Your task to perform on an android device: Open the calendar and show me this week's events Image 0: 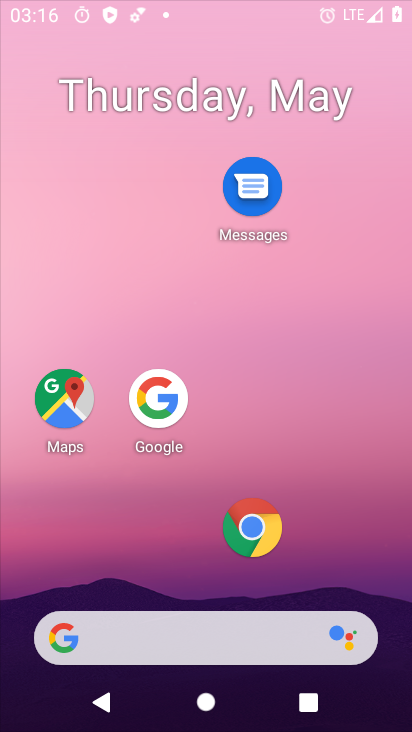
Step 0: click (216, 71)
Your task to perform on an android device: Open the calendar and show me this week's events Image 1: 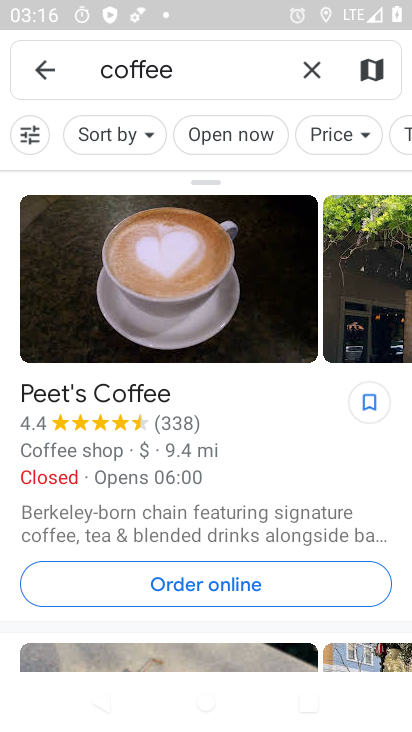
Step 1: press home button
Your task to perform on an android device: Open the calendar and show me this week's events Image 2: 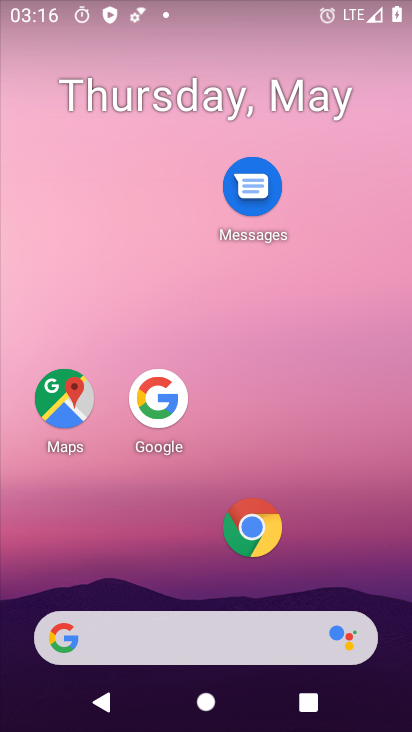
Step 2: drag from (204, 531) to (221, 146)
Your task to perform on an android device: Open the calendar and show me this week's events Image 3: 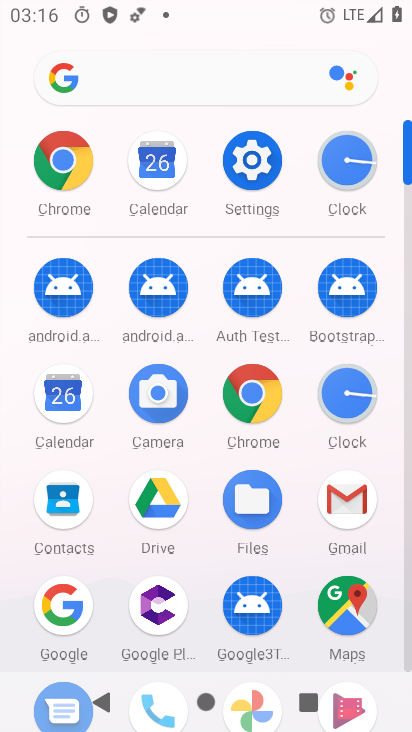
Step 3: click (59, 402)
Your task to perform on an android device: Open the calendar and show me this week's events Image 4: 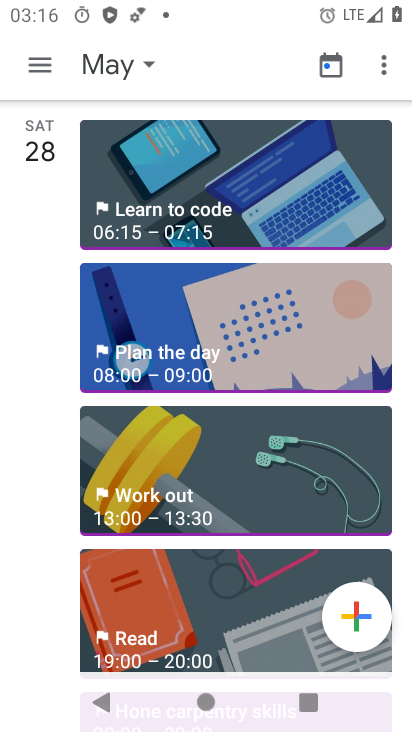
Step 4: click (144, 72)
Your task to perform on an android device: Open the calendar and show me this week's events Image 5: 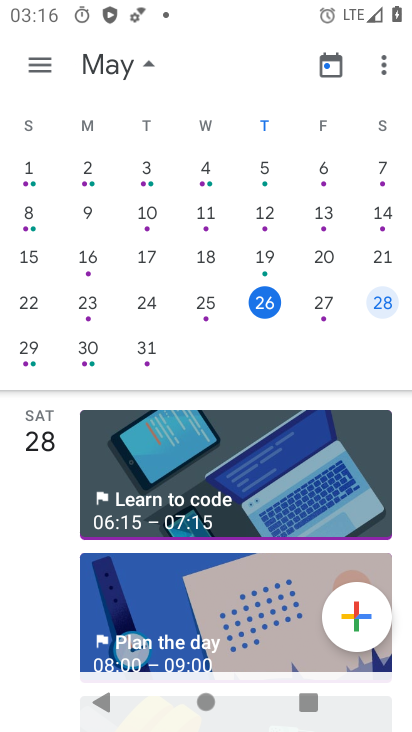
Step 5: click (128, 55)
Your task to perform on an android device: Open the calendar and show me this week's events Image 6: 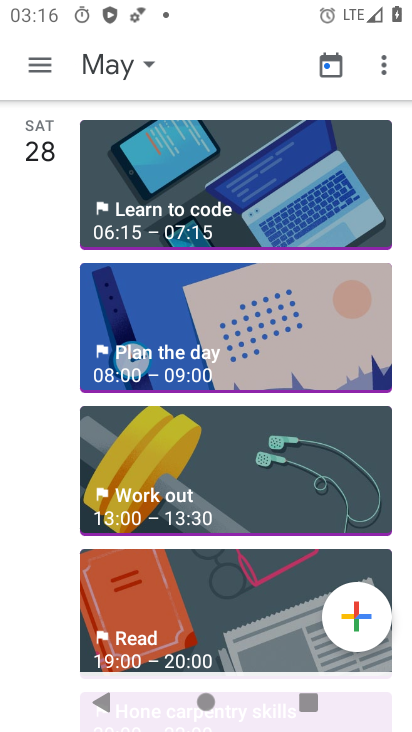
Step 6: click (128, 55)
Your task to perform on an android device: Open the calendar and show me this week's events Image 7: 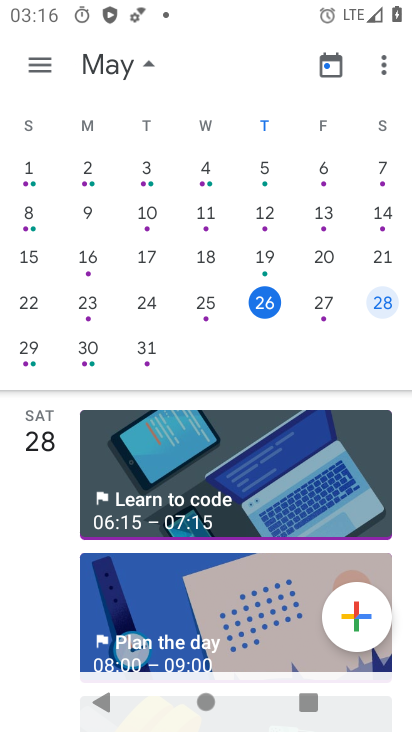
Step 7: click (331, 301)
Your task to perform on an android device: Open the calendar and show me this week's events Image 8: 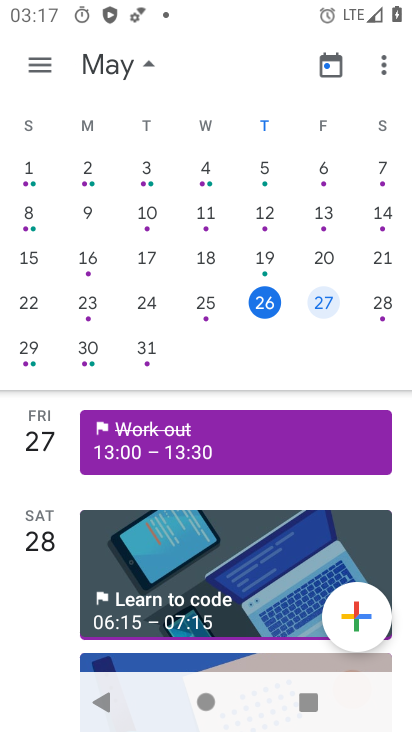
Step 8: task complete